Your task to perform on an android device: open app "DoorDash - Food Delivery" (install if not already installed) and enter user name: "Richard@outlook.com" and password: "informally" Image 0: 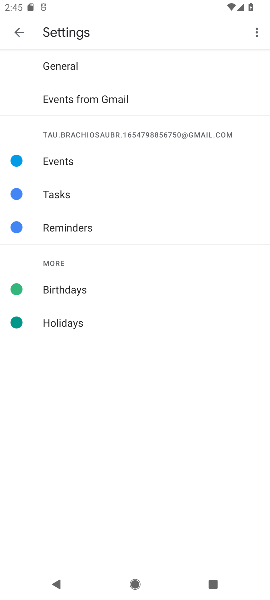
Step 0: press home button
Your task to perform on an android device: open app "DoorDash - Food Delivery" (install if not already installed) and enter user name: "Richard@outlook.com" and password: "informally" Image 1: 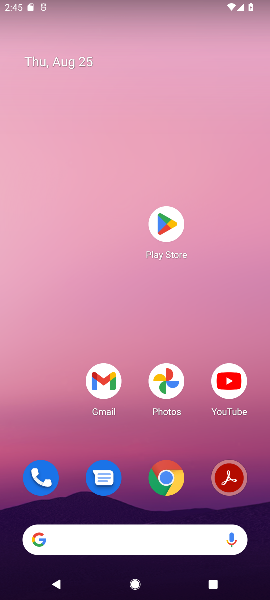
Step 1: click (166, 221)
Your task to perform on an android device: open app "DoorDash - Food Delivery" (install if not already installed) and enter user name: "Richard@outlook.com" and password: "informally" Image 2: 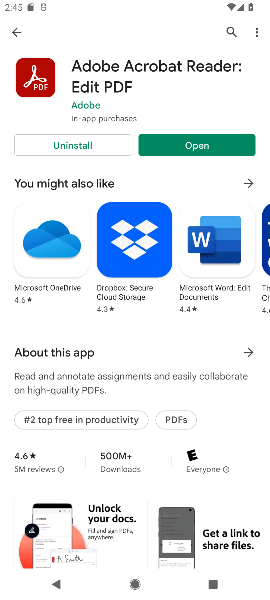
Step 2: click (227, 28)
Your task to perform on an android device: open app "DoorDash - Food Delivery" (install if not already installed) and enter user name: "Richard@outlook.com" and password: "informally" Image 3: 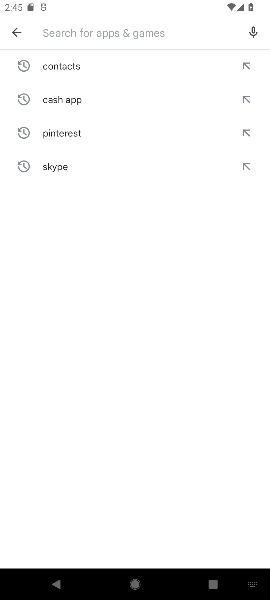
Step 3: type "DoorDash - Food Delivery"
Your task to perform on an android device: open app "DoorDash - Food Delivery" (install if not already installed) and enter user name: "Richard@outlook.com" and password: "informally" Image 4: 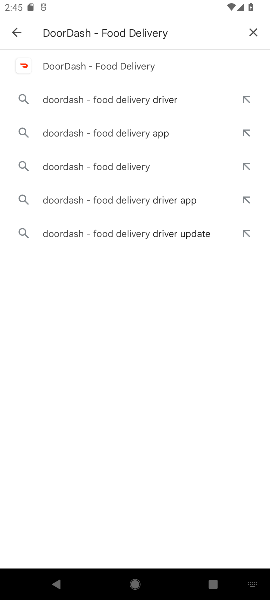
Step 4: click (89, 64)
Your task to perform on an android device: open app "DoorDash - Food Delivery" (install if not already installed) and enter user name: "Richard@outlook.com" and password: "informally" Image 5: 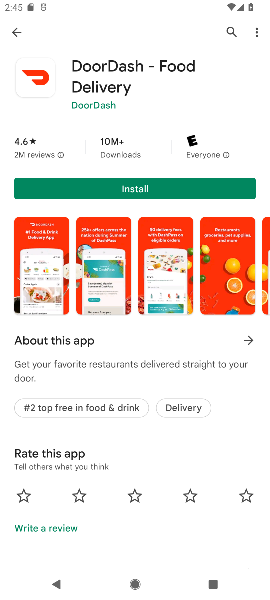
Step 5: click (147, 190)
Your task to perform on an android device: open app "DoorDash - Food Delivery" (install if not already installed) and enter user name: "Richard@outlook.com" and password: "informally" Image 6: 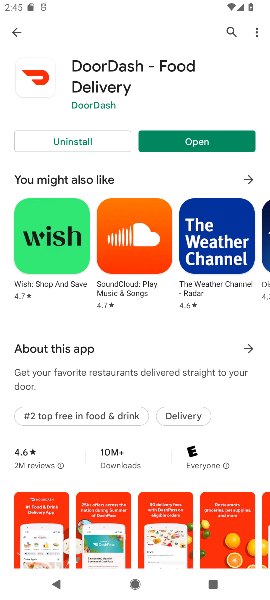
Step 6: click (225, 145)
Your task to perform on an android device: open app "DoorDash - Food Delivery" (install if not already installed) and enter user name: "Richard@outlook.com" and password: "informally" Image 7: 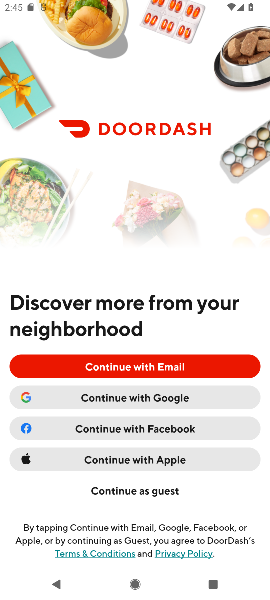
Step 7: click (164, 364)
Your task to perform on an android device: open app "DoorDash - Food Delivery" (install if not already installed) and enter user name: "Richard@outlook.com" and password: "informally" Image 8: 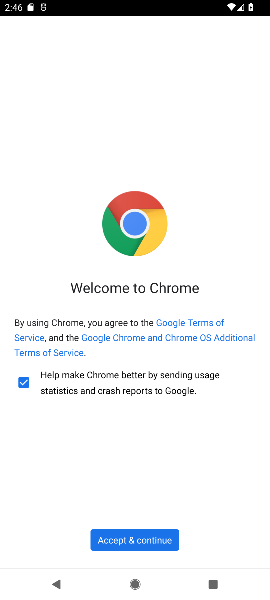
Step 8: press back button
Your task to perform on an android device: open app "DoorDash - Food Delivery" (install if not already installed) and enter user name: "Richard@outlook.com" and password: "informally" Image 9: 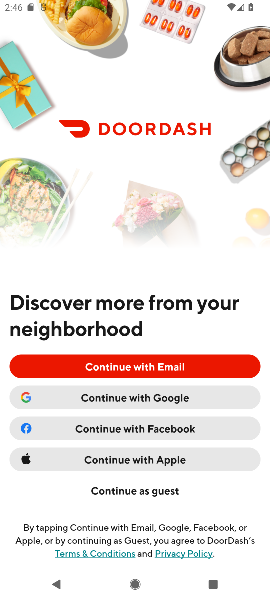
Step 9: click (168, 367)
Your task to perform on an android device: open app "DoorDash - Food Delivery" (install if not already installed) and enter user name: "Richard@outlook.com" and password: "informally" Image 10: 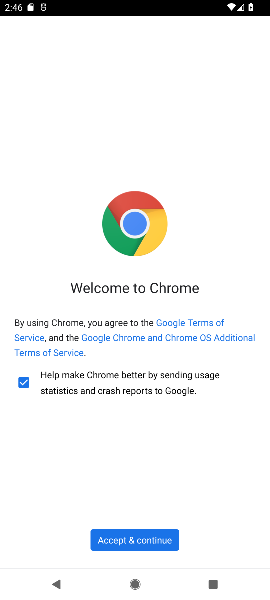
Step 10: click (146, 535)
Your task to perform on an android device: open app "DoorDash - Food Delivery" (install if not already installed) and enter user name: "Richard@outlook.com" and password: "informally" Image 11: 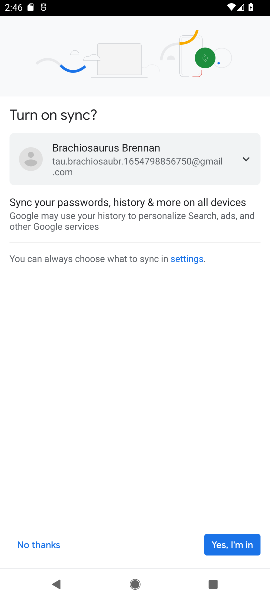
Step 11: click (243, 544)
Your task to perform on an android device: open app "DoorDash - Food Delivery" (install if not already installed) and enter user name: "Richard@outlook.com" and password: "informally" Image 12: 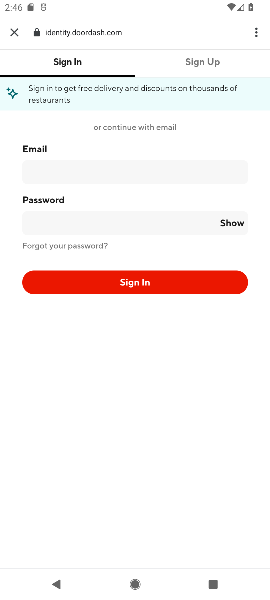
Step 12: click (39, 145)
Your task to perform on an android device: open app "DoorDash - Food Delivery" (install if not already installed) and enter user name: "Richard@outlook.com" and password: "informally" Image 13: 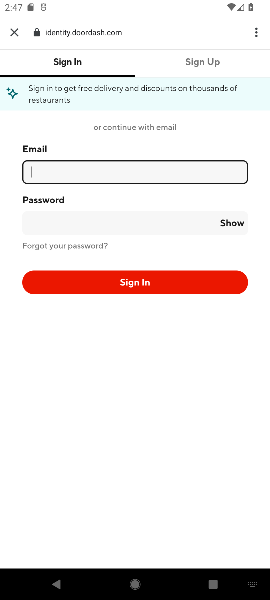
Step 13: type "Richard@outlook.com"
Your task to perform on an android device: open app "DoorDash - Food Delivery" (install if not already installed) and enter user name: "Richard@outlook.com" and password: "informally" Image 14: 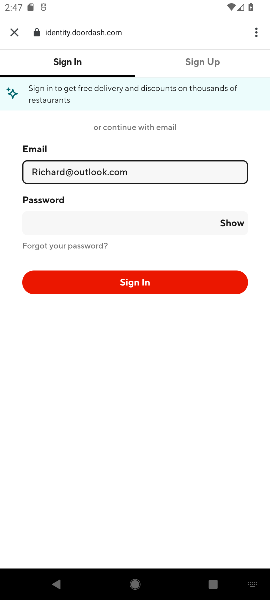
Step 14: click (38, 220)
Your task to perform on an android device: open app "DoorDash - Food Delivery" (install if not already installed) and enter user name: "Richard@outlook.com" and password: "informally" Image 15: 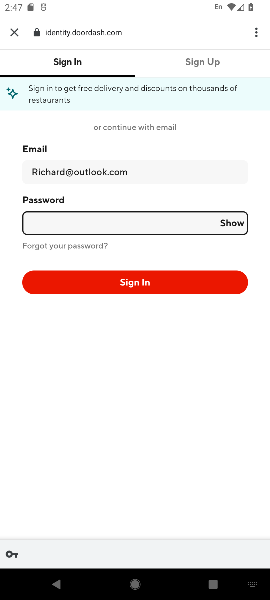
Step 15: type "informally"
Your task to perform on an android device: open app "DoorDash - Food Delivery" (install if not already installed) and enter user name: "Richard@outlook.com" and password: "informally" Image 16: 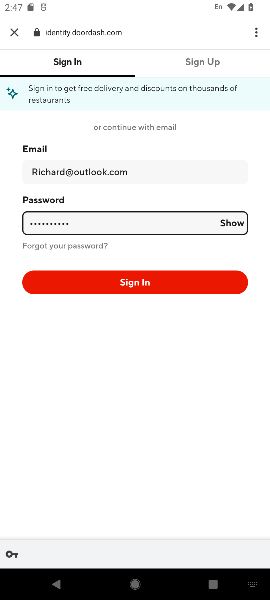
Step 16: task complete